Your task to perform on an android device: see tabs open on other devices in the chrome app Image 0: 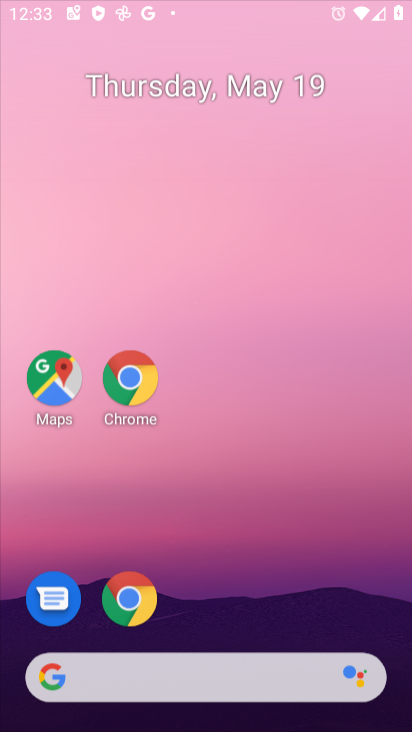
Step 0: drag from (280, 514) to (172, 170)
Your task to perform on an android device: see tabs open on other devices in the chrome app Image 1: 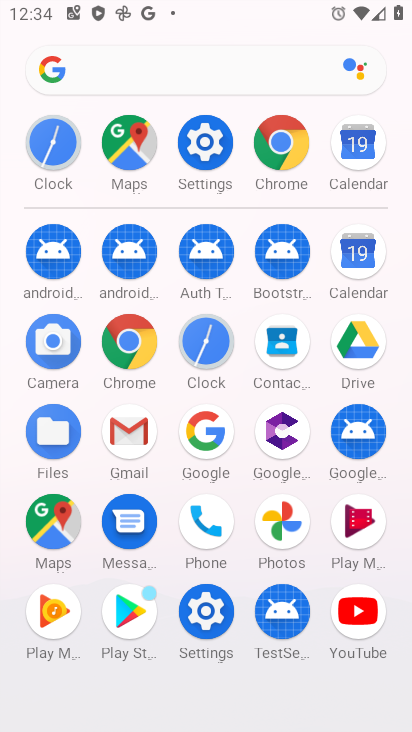
Step 1: click (285, 148)
Your task to perform on an android device: see tabs open on other devices in the chrome app Image 2: 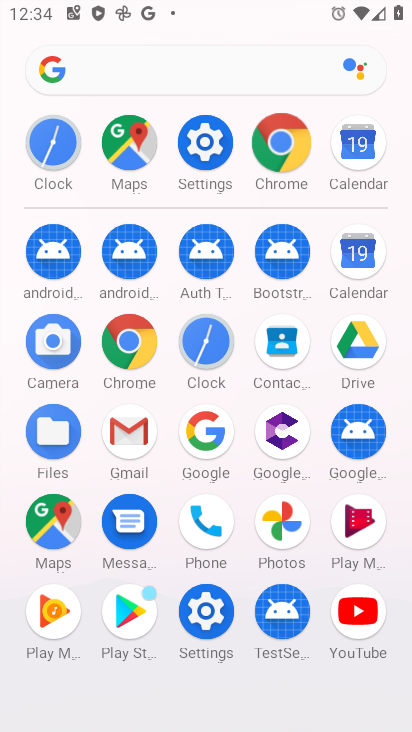
Step 2: click (285, 148)
Your task to perform on an android device: see tabs open on other devices in the chrome app Image 3: 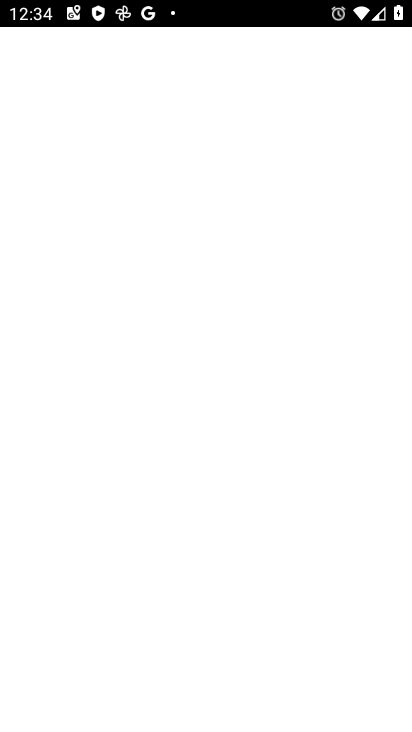
Step 3: click (283, 148)
Your task to perform on an android device: see tabs open on other devices in the chrome app Image 4: 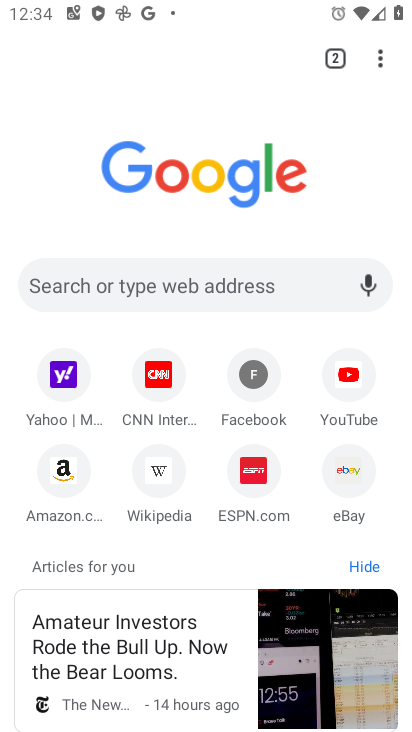
Step 4: press back button
Your task to perform on an android device: see tabs open on other devices in the chrome app Image 5: 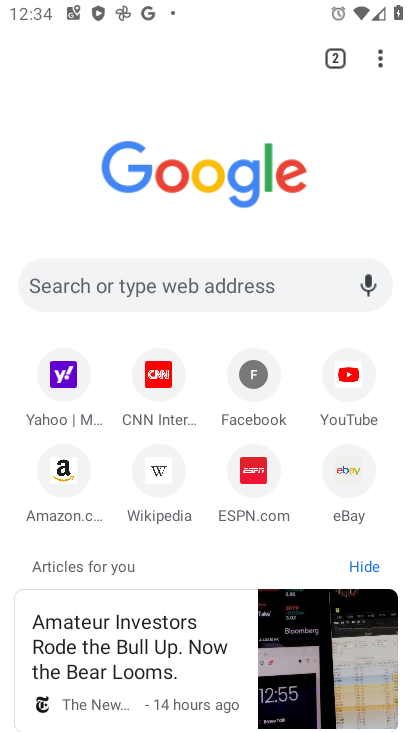
Step 5: press back button
Your task to perform on an android device: see tabs open on other devices in the chrome app Image 6: 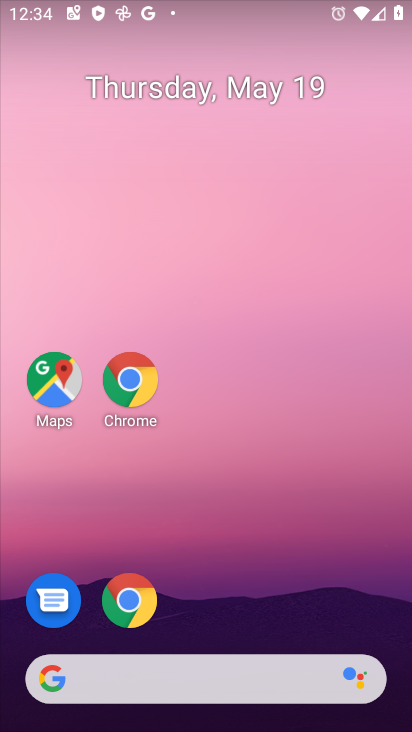
Step 6: drag from (271, 626) to (94, 76)
Your task to perform on an android device: see tabs open on other devices in the chrome app Image 7: 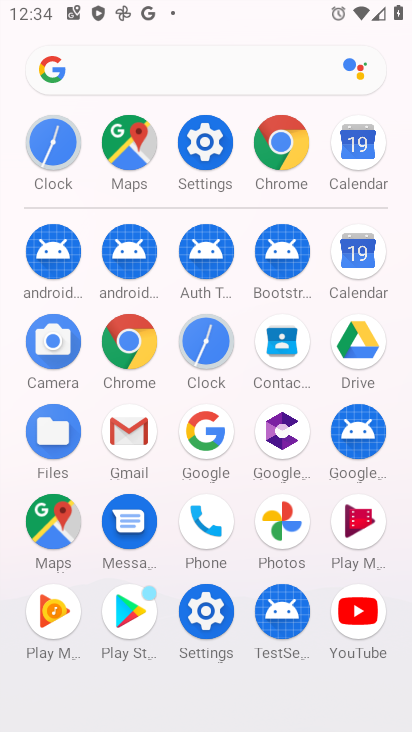
Step 7: click (285, 149)
Your task to perform on an android device: see tabs open on other devices in the chrome app Image 8: 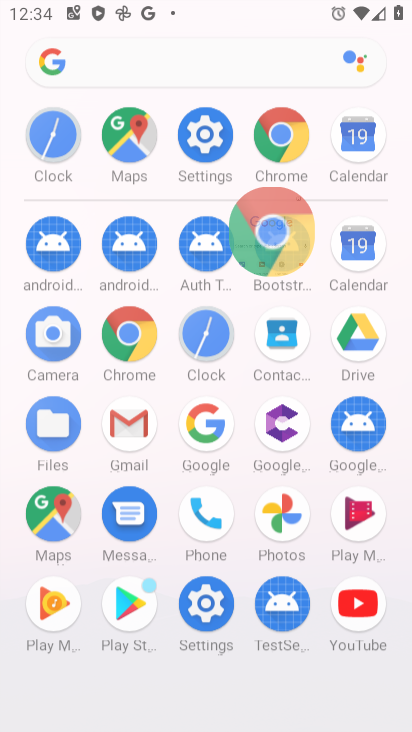
Step 8: click (285, 149)
Your task to perform on an android device: see tabs open on other devices in the chrome app Image 9: 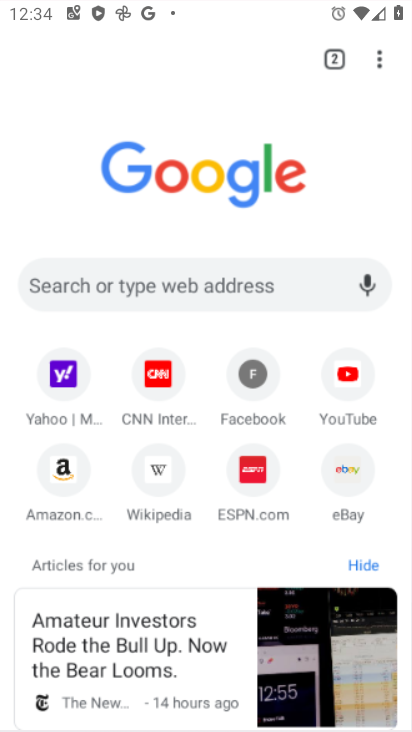
Step 9: click (285, 149)
Your task to perform on an android device: see tabs open on other devices in the chrome app Image 10: 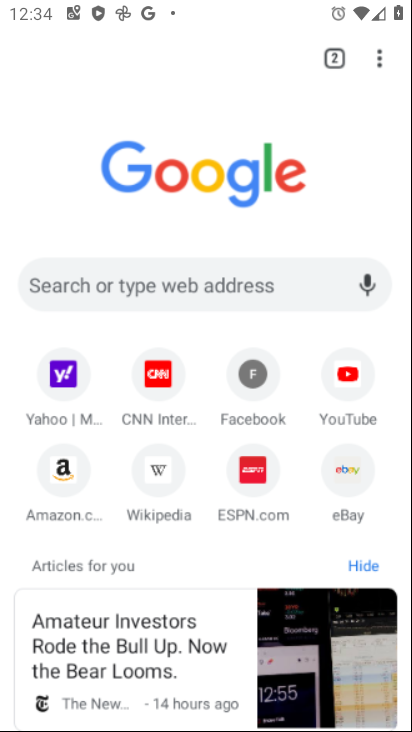
Step 10: click (285, 149)
Your task to perform on an android device: see tabs open on other devices in the chrome app Image 11: 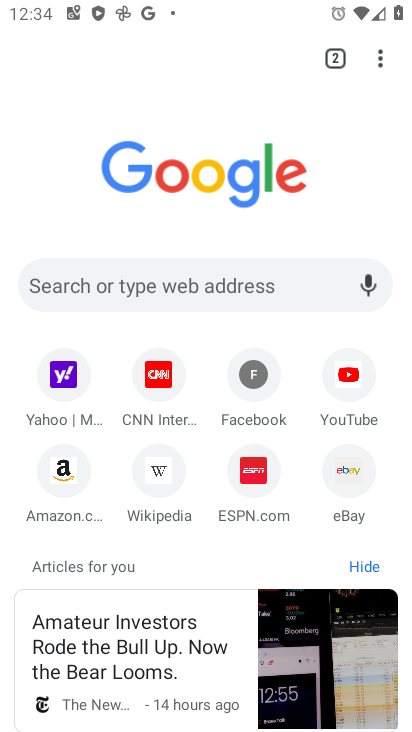
Step 11: drag from (377, 61) to (172, 280)
Your task to perform on an android device: see tabs open on other devices in the chrome app Image 12: 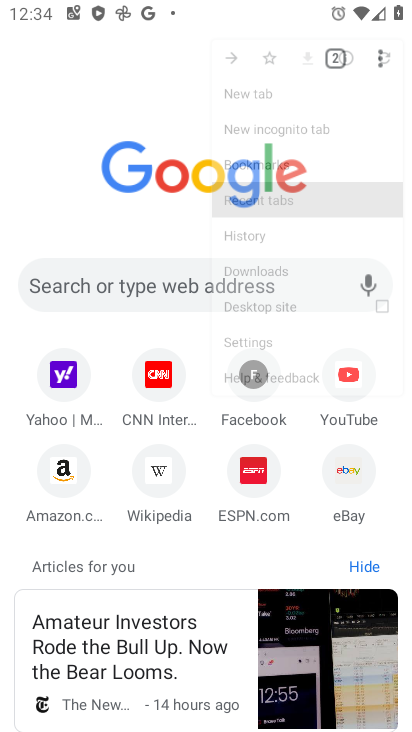
Step 12: click (177, 286)
Your task to perform on an android device: see tabs open on other devices in the chrome app Image 13: 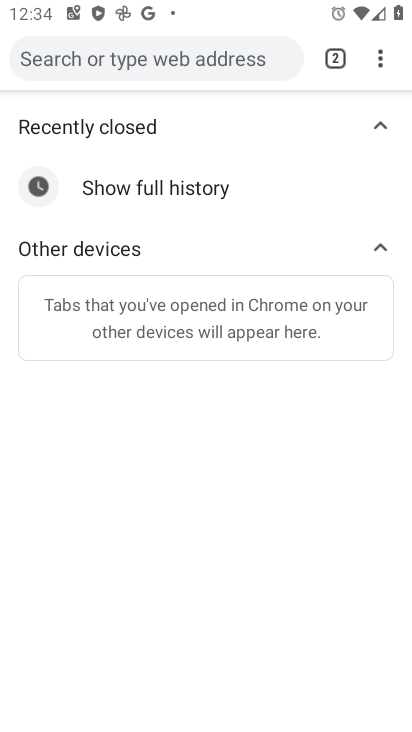
Step 13: click (185, 260)
Your task to perform on an android device: see tabs open on other devices in the chrome app Image 14: 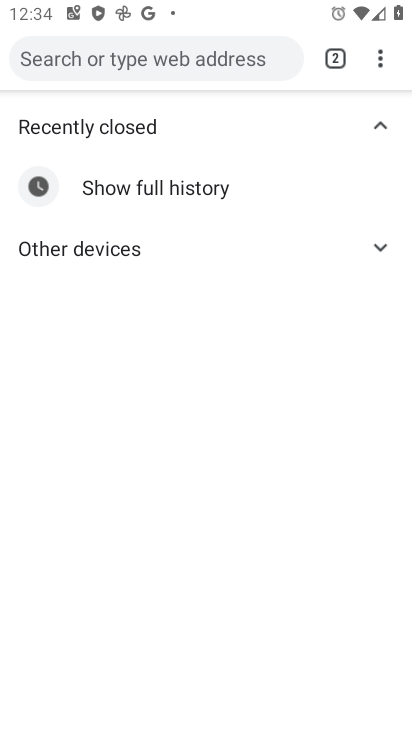
Step 14: task complete